Your task to perform on an android device: toggle priority inbox in the gmail app Image 0: 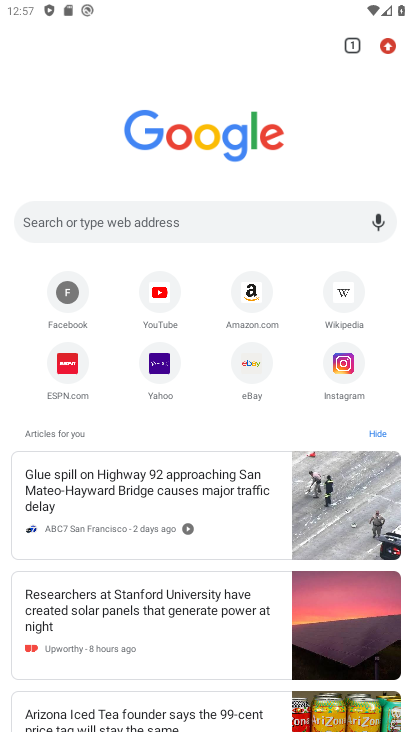
Step 0: press home button
Your task to perform on an android device: toggle priority inbox in the gmail app Image 1: 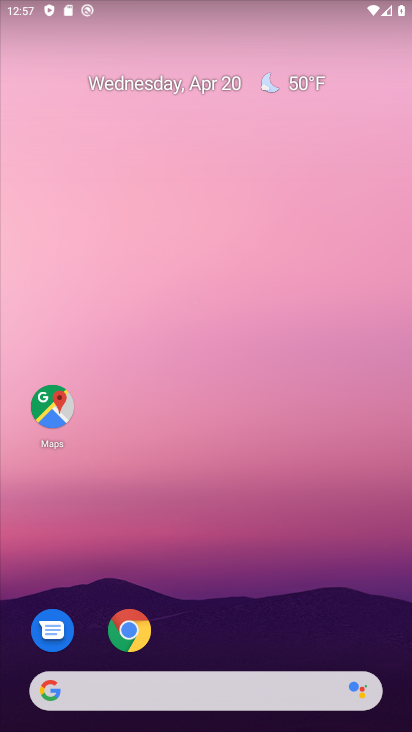
Step 1: drag from (237, 512) to (227, 99)
Your task to perform on an android device: toggle priority inbox in the gmail app Image 2: 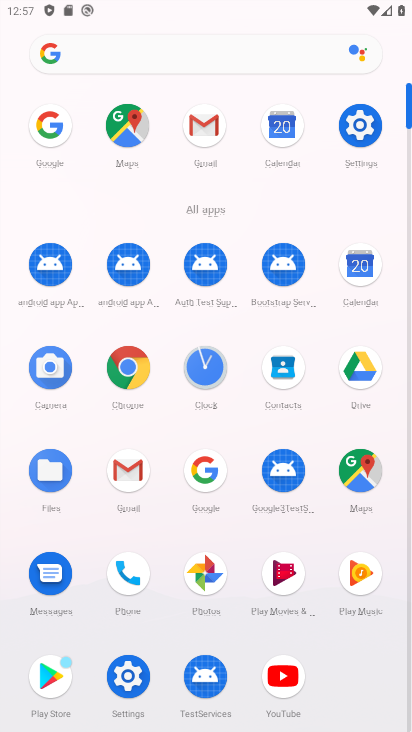
Step 2: click (204, 122)
Your task to perform on an android device: toggle priority inbox in the gmail app Image 3: 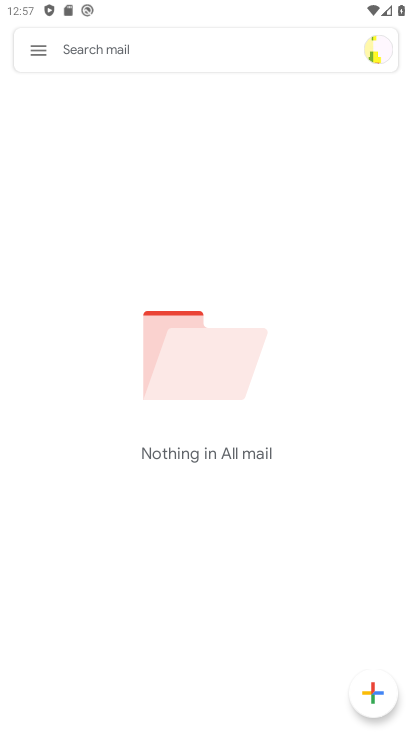
Step 3: click (39, 48)
Your task to perform on an android device: toggle priority inbox in the gmail app Image 4: 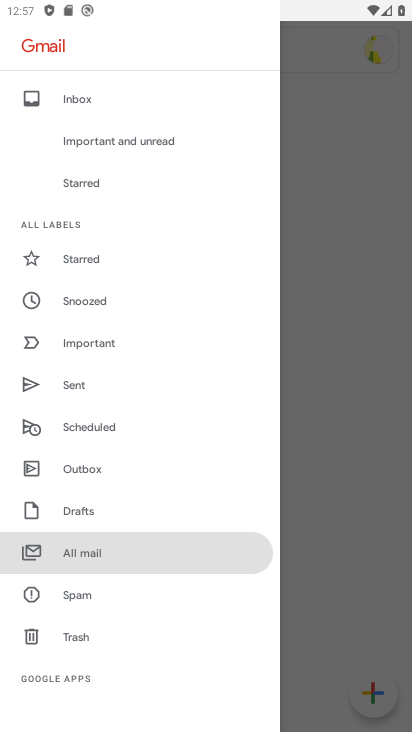
Step 4: drag from (89, 657) to (102, 212)
Your task to perform on an android device: toggle priority inbox in the gmail app Image 5: 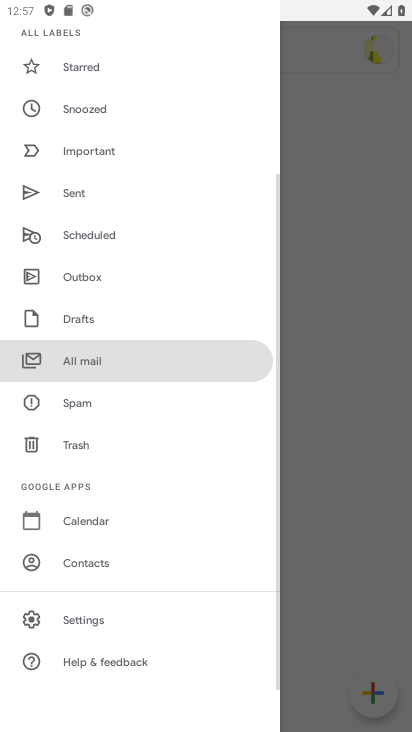
Step 5: click (89, 620)
Your task to perform on an android device: toggle priority inbox in the gmail app Image 6: 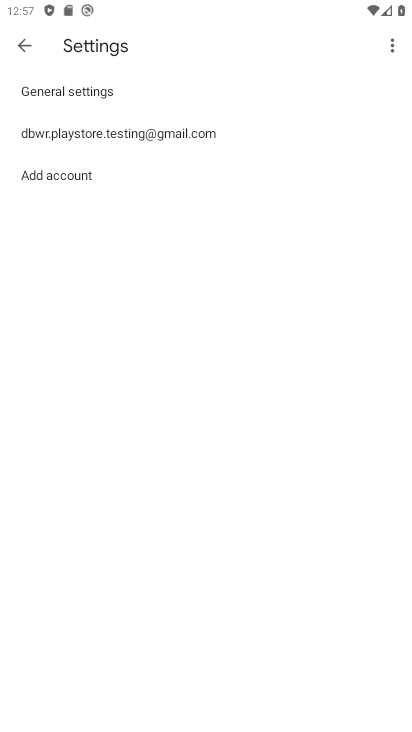
Step 6: click (88, 140)
Your task to perform on an android device: toggle priority inbox in the gmail app Image 7: 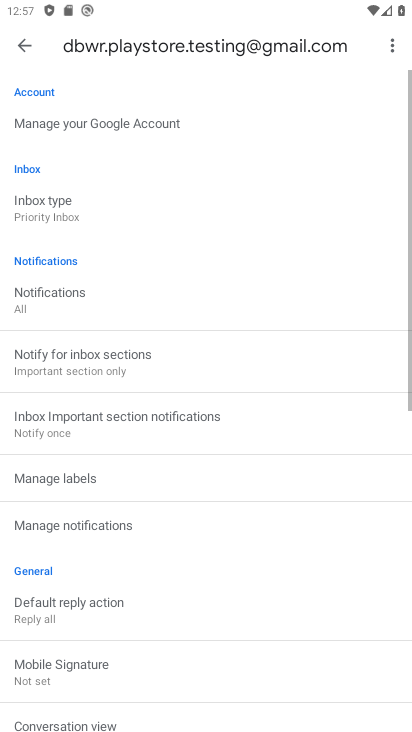
Step 7: drag from (165, 633) to (137, 139)
Your task to perform on an android device: toggle priority inbox in the gmail app Image 8: 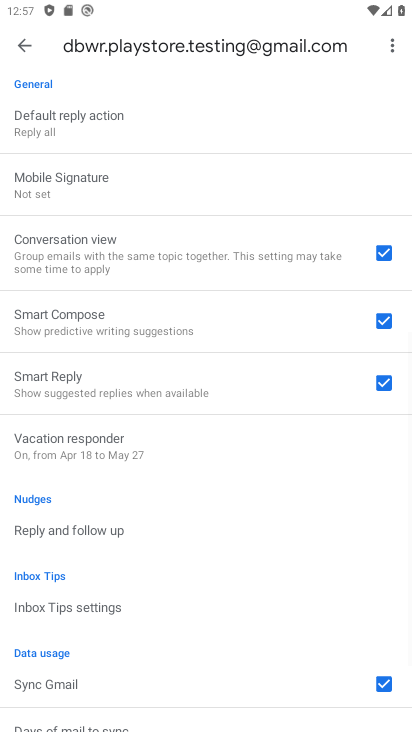
Step 8: drag from (171, 599) to (144, 205)
Your task to perform on an android device: toggle priority inbox in the gmail app Image 9: 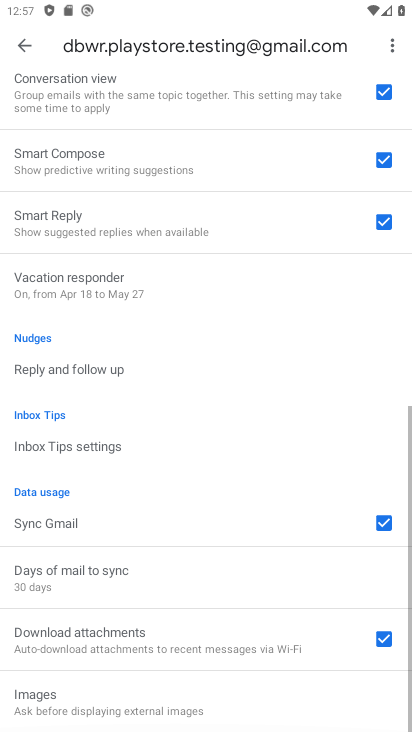
Step 9: drag from (152, 240) to (195, 681)
Your task to perform on an android device: toggle priority inbox in the gmail app Image 10: 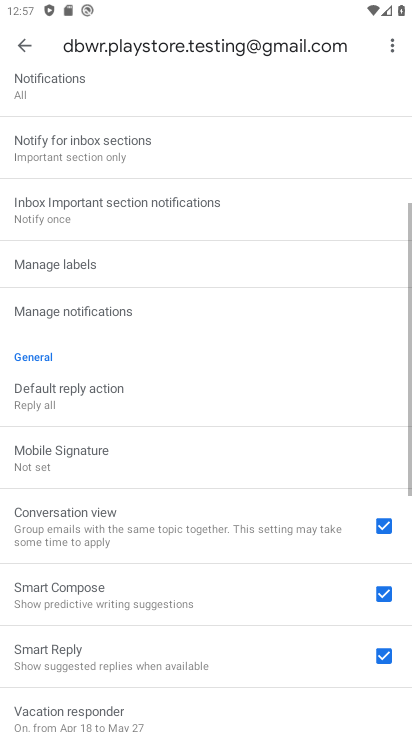
Step 10: drag from (104, 125) to (158, 601)
Your task to perform on an android device: toggle priority inbox in the gmail app Image 11: 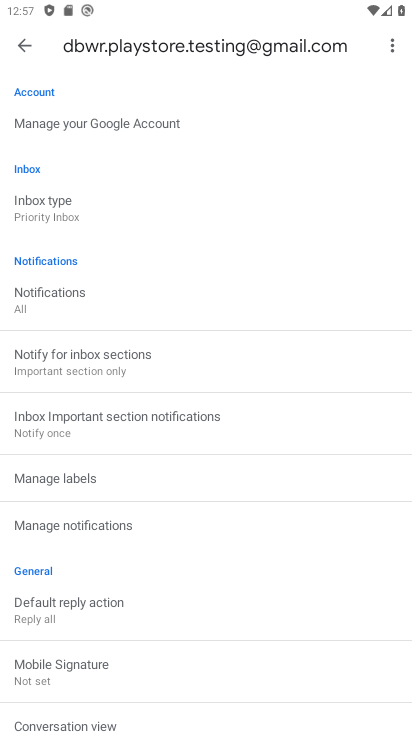
Step 11: click (81, 213)
Your task to perform on an android device: toggle priority inbox in the gmail app Image 12: 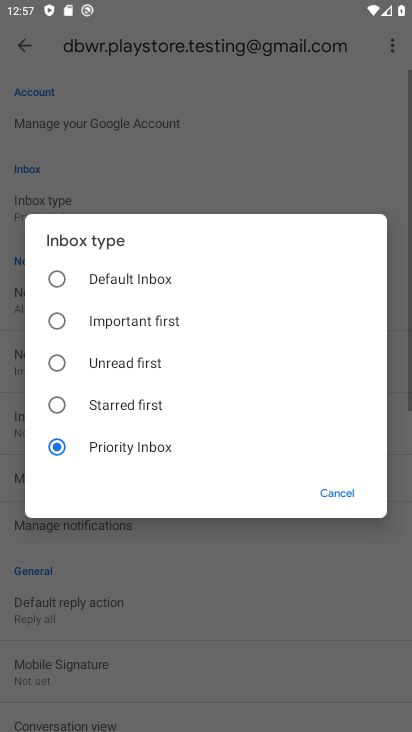
Step 12: click (59, 268)
Your task to perform on an android device: toggle priority inbox in the gmail app Image 13: 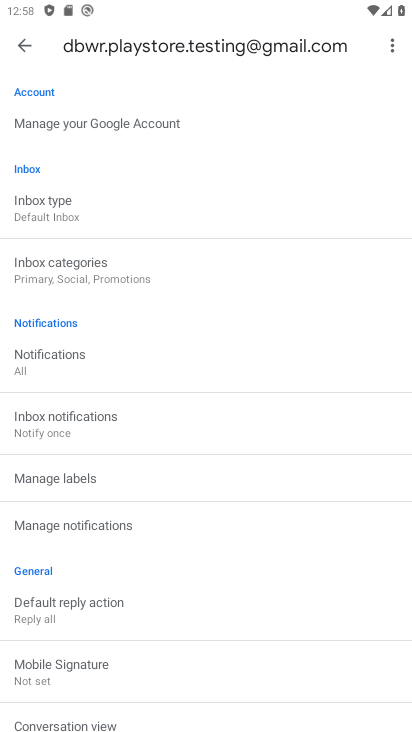
Step 13: task complete